Your task to perform on an android device: add a label to a message in the gmail app Image 0: 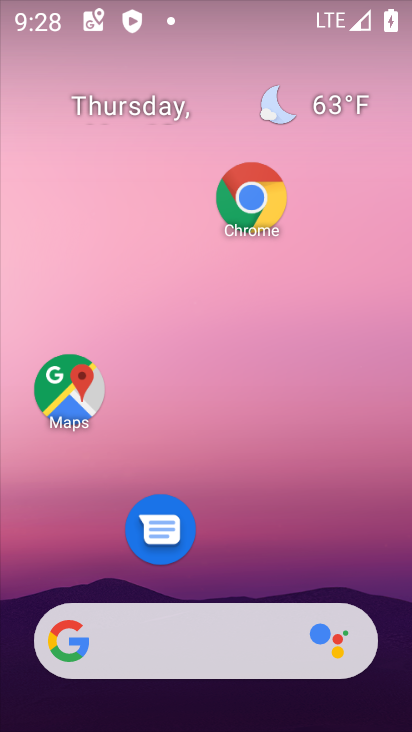
Step 0: drag from (216, 591) to (267, 347)
Your task to perform on an android device: add a label to a message in the gmail app Image 1: 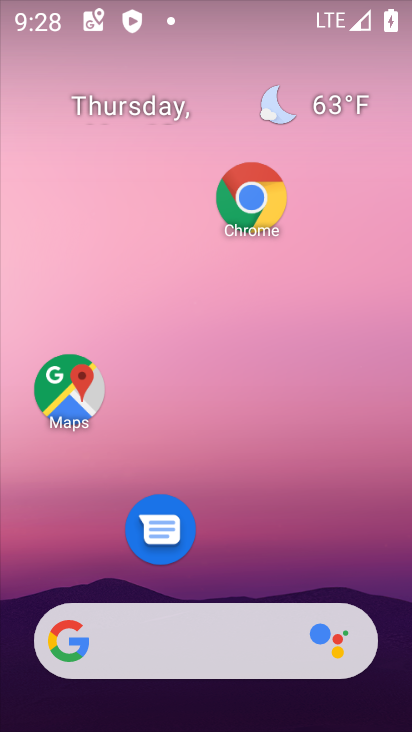
Step 1: drag from (338, 587) to (366, 165)
Your task to perform on an android device: add a label to a message in the gmail app Image 2: 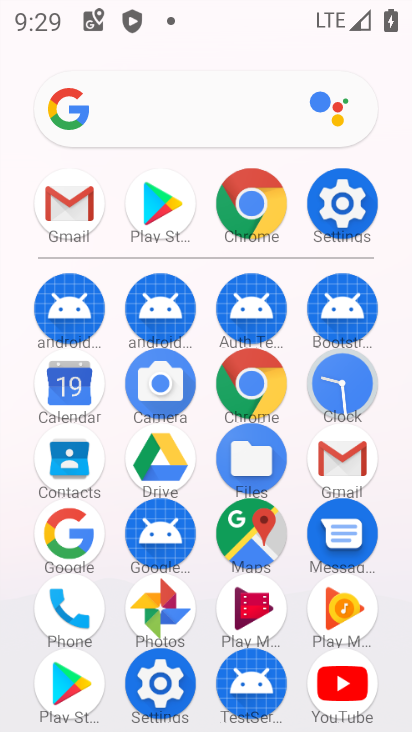
Step 2: click (356, 459)
Your task to perform on an android device: add a label to a message in the gmail app Image 3: 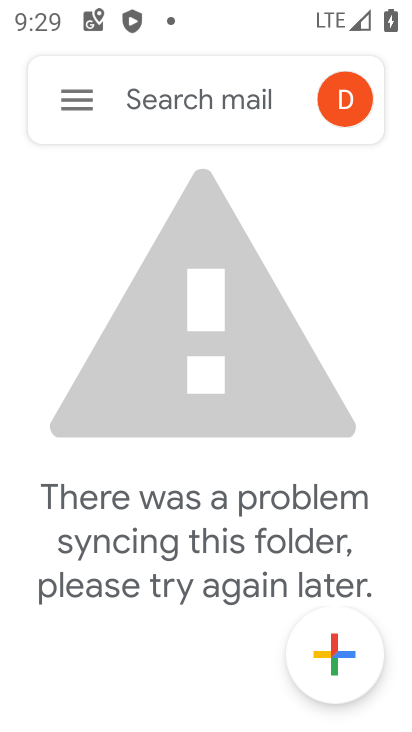
Step 3: click (90, 97)
Your task to perform on an android device: add a label to a message in the gmail app Image 4: 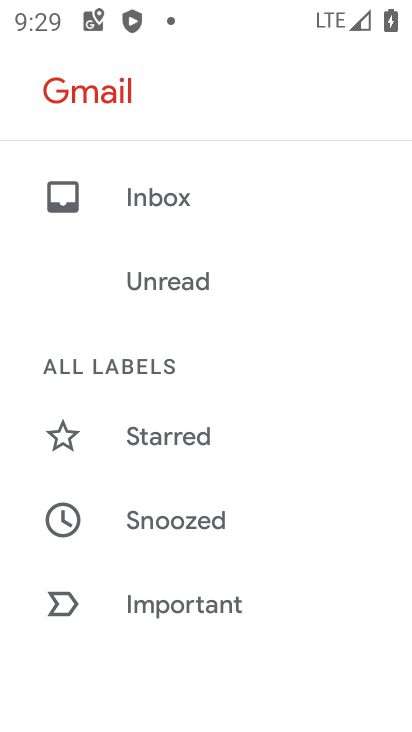
Step 4: drag from (211, 538) to (304, 213)
Your task to perform on an android device: add a label to a message in the gmail app Image 5: 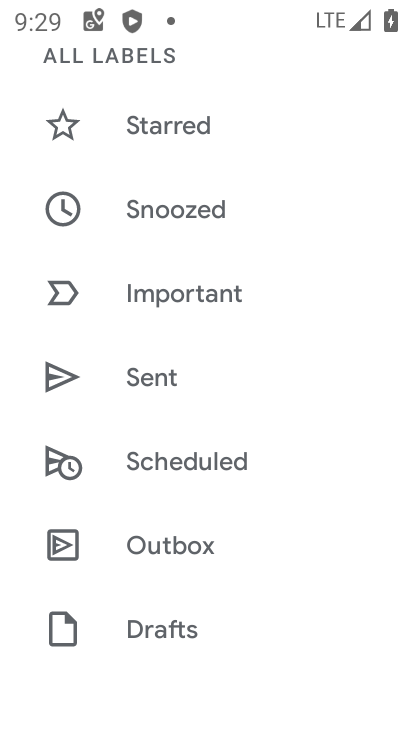
Step 5: drag from (164, 622) to (212, 494)
Your task to perform on an android device: add a label to a message in the gmail app Image 6: 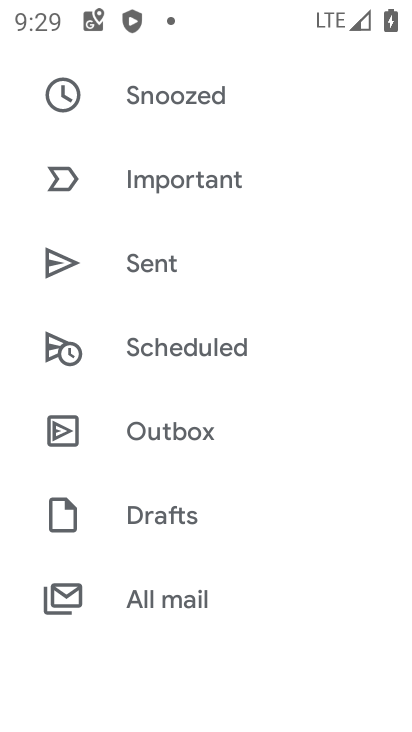
Step 6: click (184, 595)
Your task to perform on an android device: add a label to a message in the gmail app Image 7: 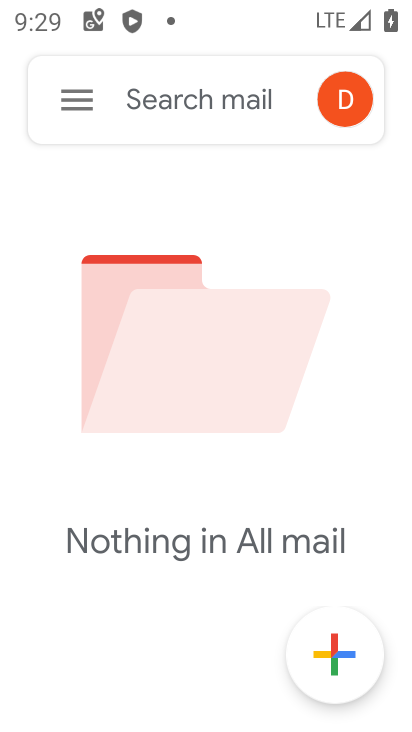
Step 7: task complete